Your task to perform on an android device: turn off priority inbox in the gmail app Image 0: 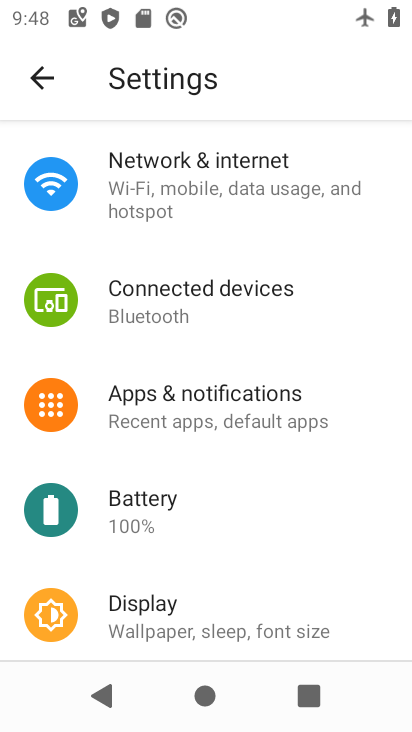
Step 0: press home button
Your task to perform on an android device: turn off priority inbox in the gmail app Image 1: 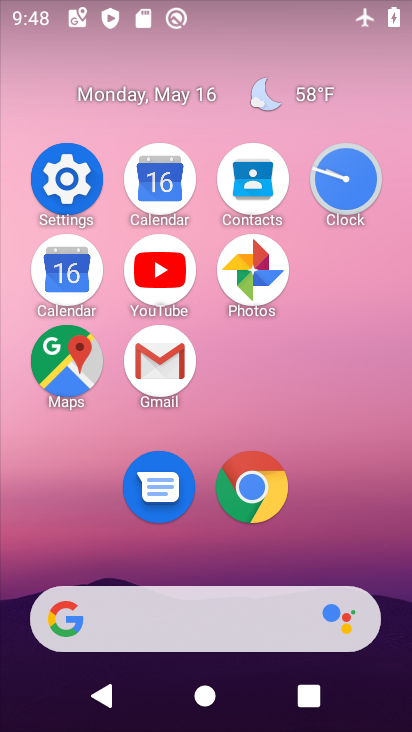
Step 1: click (161, 362)
Your task to perform on an android device: turn off priority inbox in the gmail app Image 2: 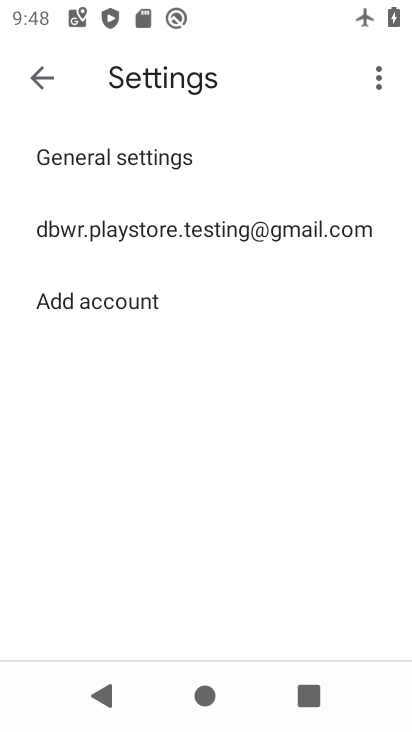
Step 2: click (110, 228)
Your task to perform on an android device: turn off priority inbox in the gmail app Image 3: 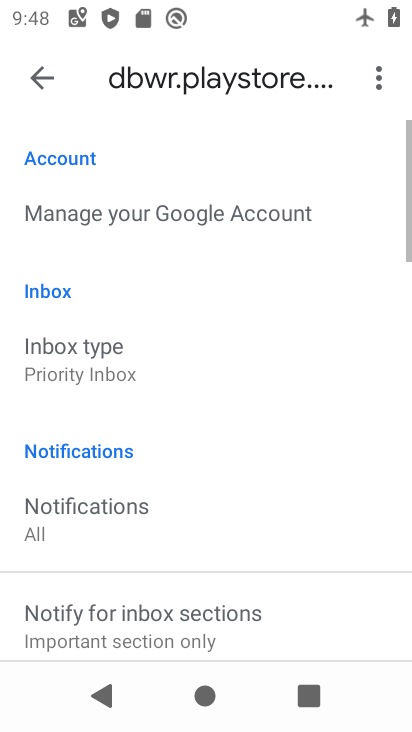
Step 3: click (54, 346)
Your task to perform on an android device: turn off priority inbox in the gmail app Image 4: 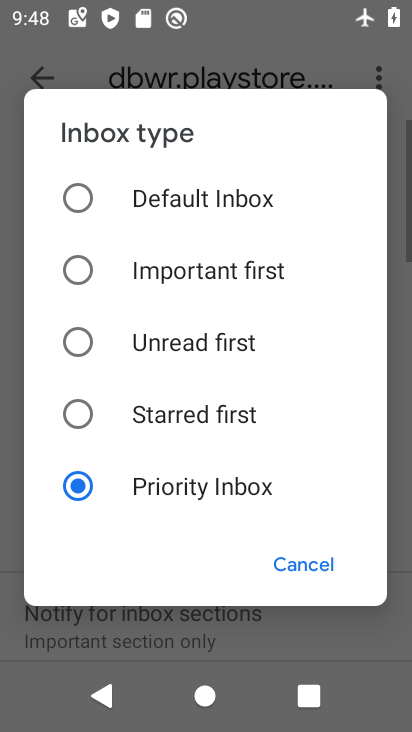
Step 4: click (207, 204)
Your task to perform on an android device: turn off priority inbox in the gmail app Image 5: 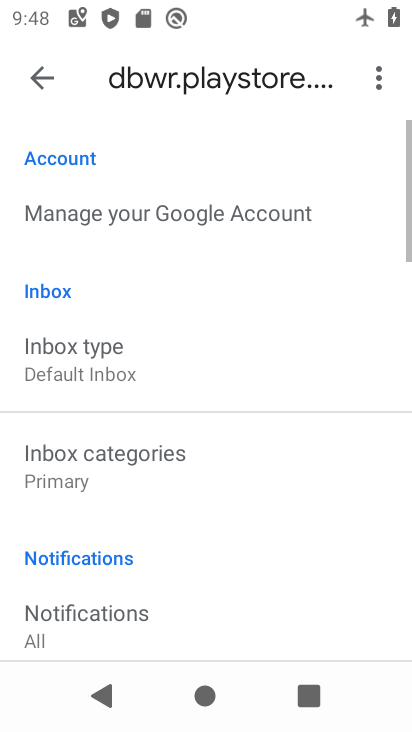
Step 5: task complete